Your task to perform on an android device: Open Maps and search for coffee Image 0: 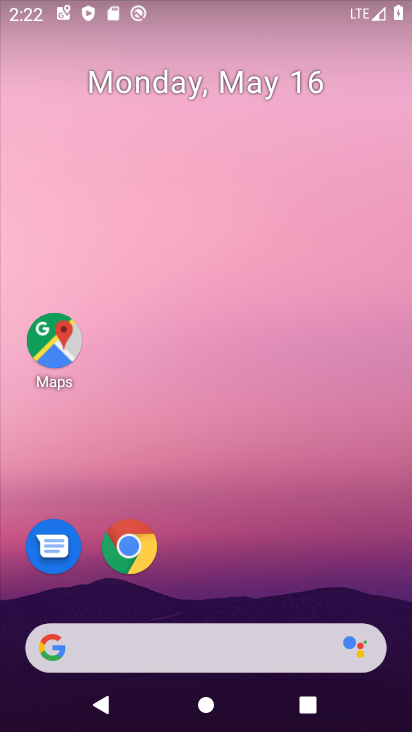
Step 0: drag from (237, 672) to (217, 197)
Your task to perform on an android device: Open Maps and search for coffee Image 1: 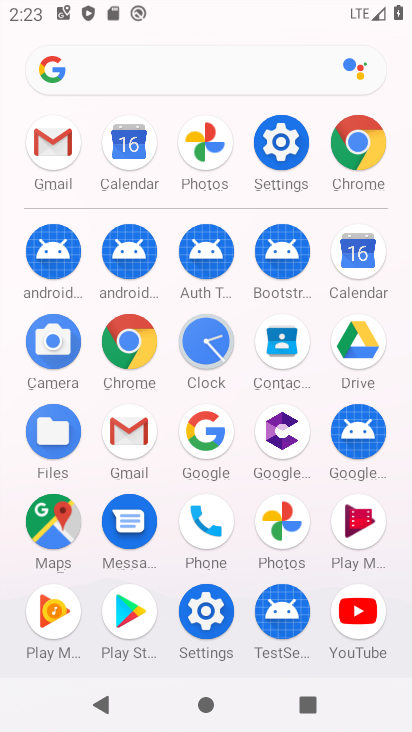
Step 1: click (67, 514)
Your task to perform on an android device: Open Maps and search for coffee Image 2: 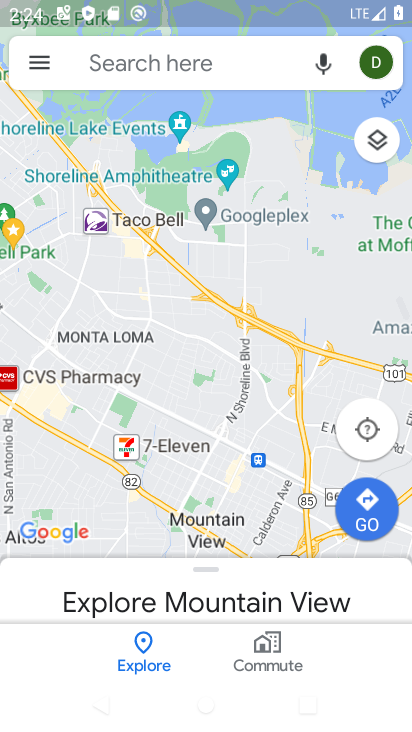
Step 2: click (178, 56)
Your task to perform on an android device: Open Maps and search for coffee Image 3: 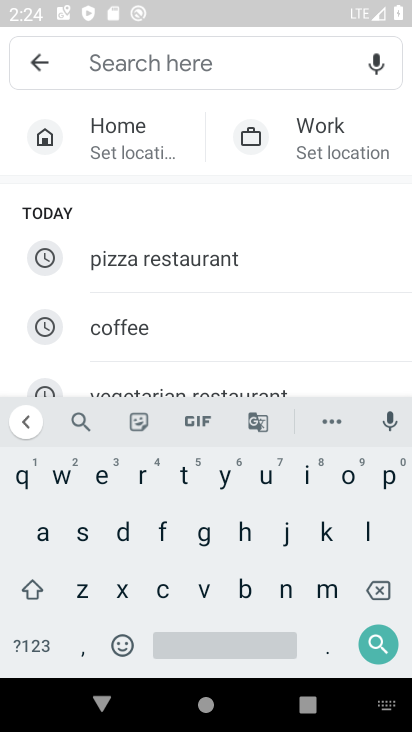
Step 3: click (173, 324)
Your task to perform on an android device: Open Maps and search for coffee Image 4: 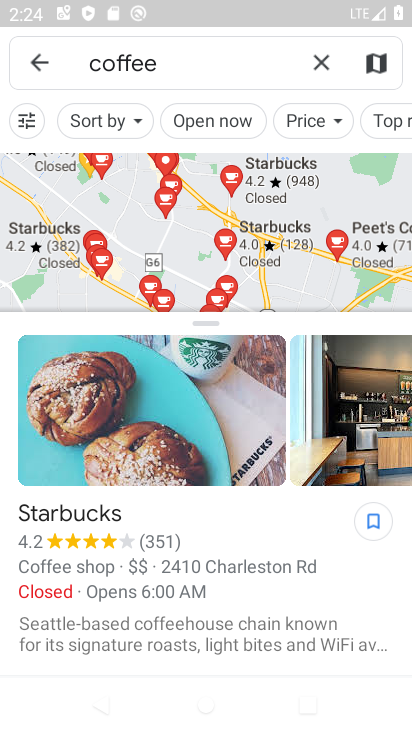
Step 4: click (176, 255)
Your task to perform on an android device: Open Maps and search for coffee Image 5: 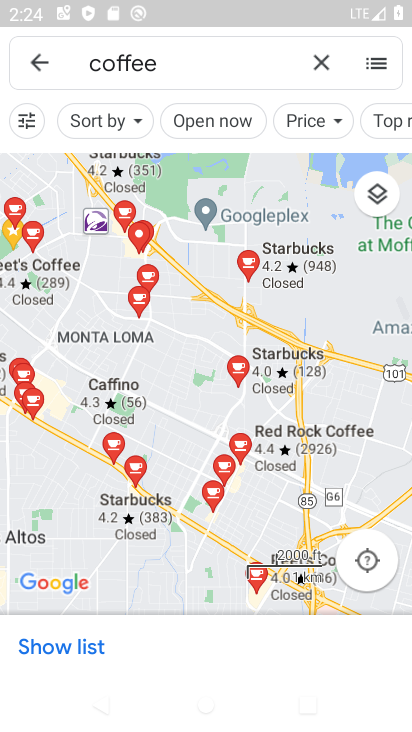
Step 5: task complete